Your task to perform on an android device: Open Google Chrome and click the shortcut for Amazon.com Image 0: 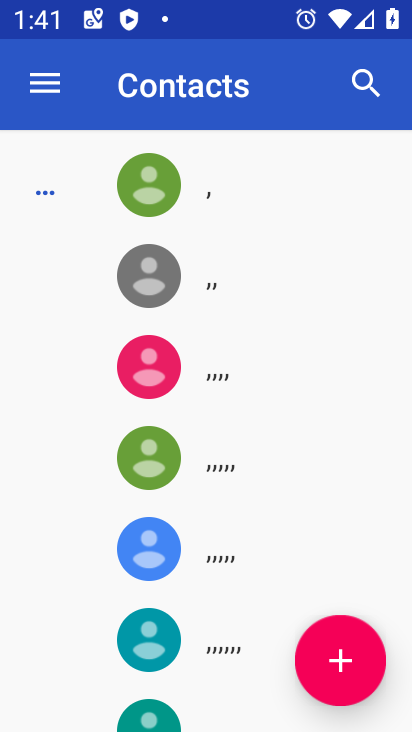
Step 0: press home button
Your task to perform on an android device: Open Google Chrome and click the shortcut for Amazon.com Image 1: 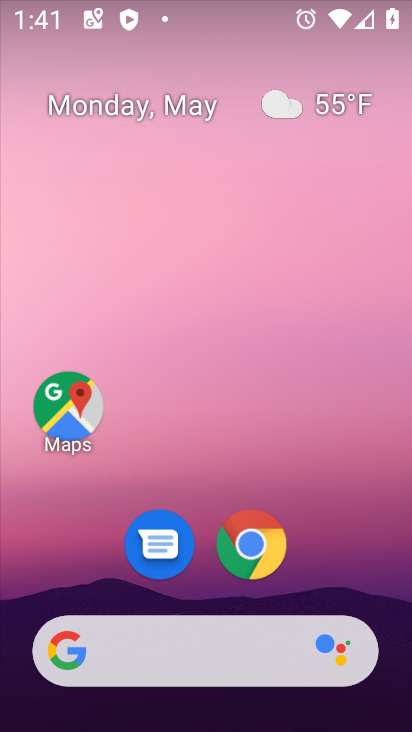
Step 1: click (249, 544)
Your task to perform on an android device: Open Google Chrome and click the shortcut for Amazon.com Image 2: 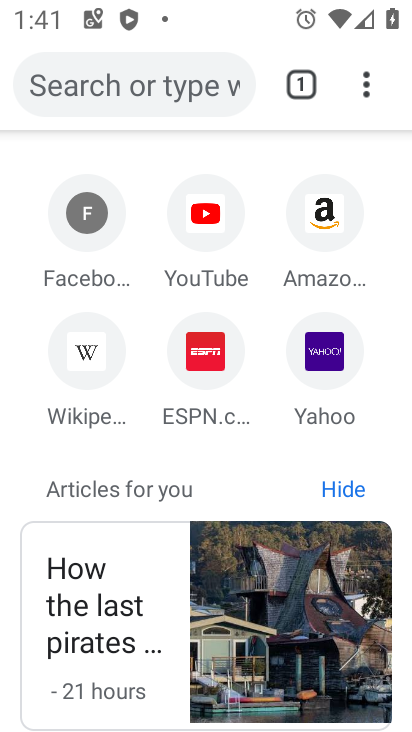
Step 2: click (325, 211)
Your task to perform on an android device: Open Google Chrome and click the shortcut for Amazon.com Image 3: 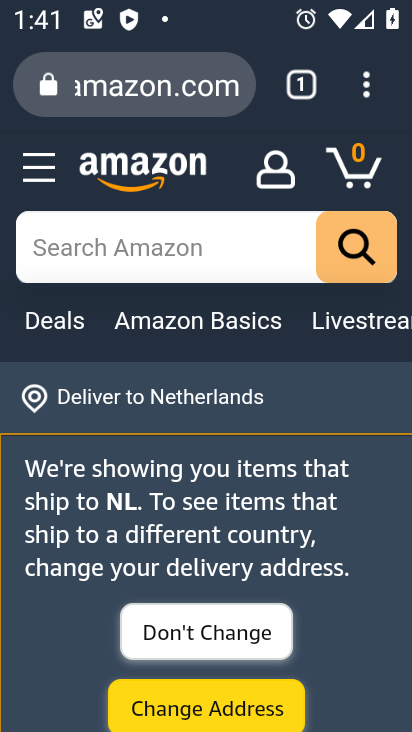
Step 3: task complete